Your task to perform on an android device: Open Yahoo.com Image 0: 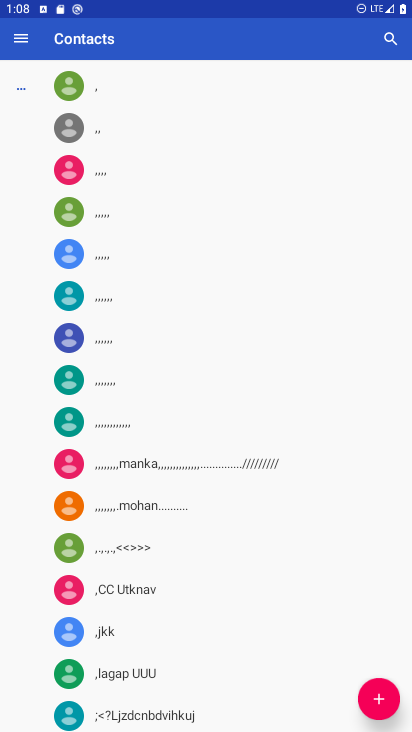
Step 0: press home button
Your task to perform on an android device: Open Yahoo.com Image 1: 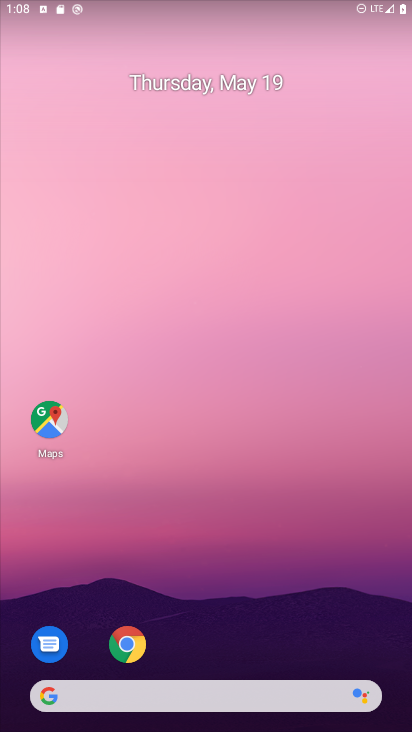
Step 1: drag from (285, 634) to (188, 39)
Your task to perform on an android device: Open Yahoo.com Image 2: 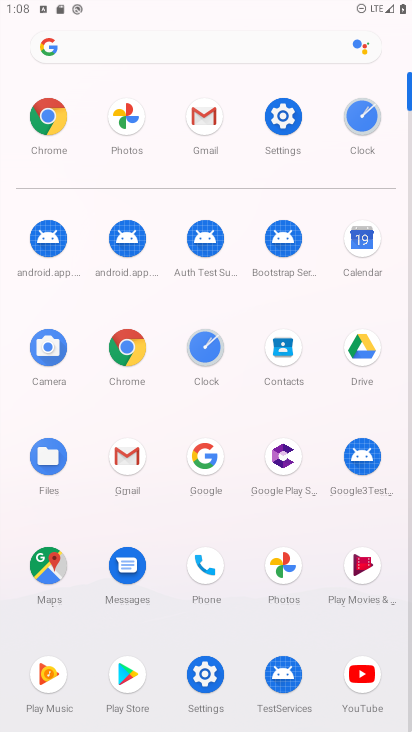
Step 2: click (61, 120)
Your task to perform on an android device: Open Yahoo.com Image 3: 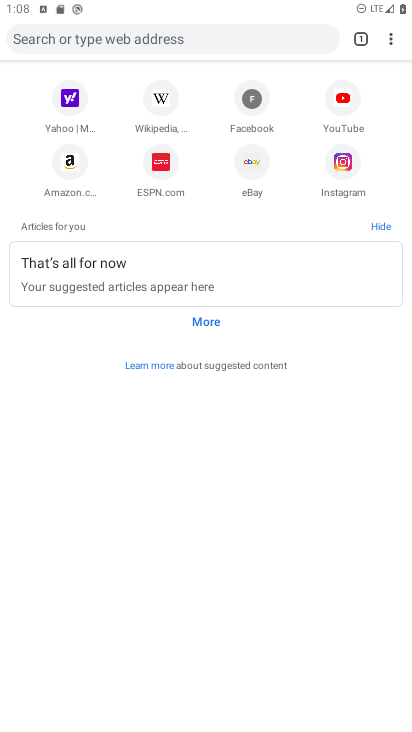
Step 3: click (66, 104)
Your task to perform on an android device: Open Yahoo.com Image 4: 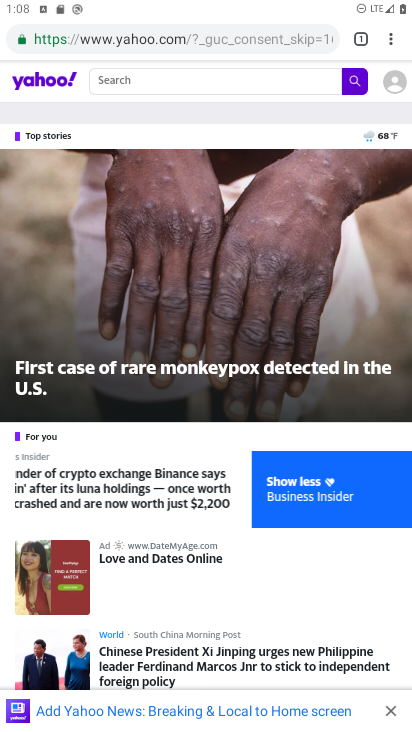
Step 4: task complete